Your task to perform on an android device: turn notification dots on Image 0: 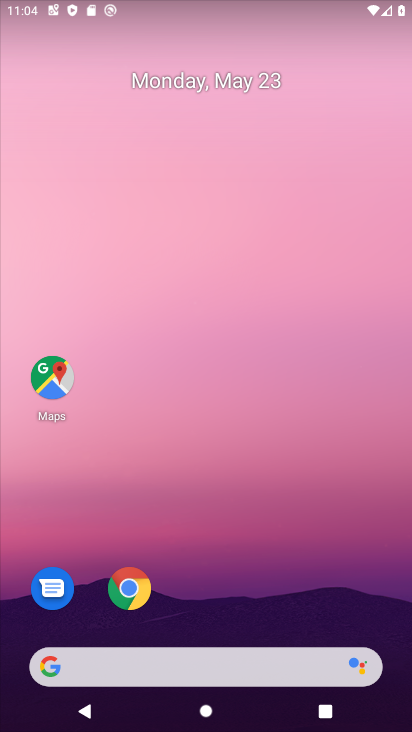
Step 0: drag from (241, 560) to (204, 87)
Your task to perform on an android device: turn notification dots on Image 1: 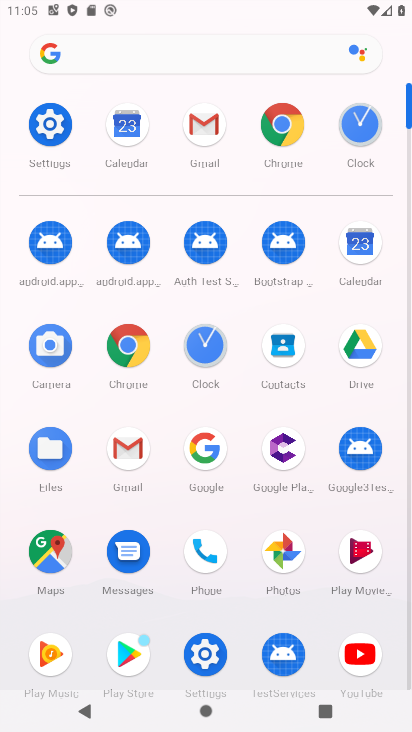
Step 1: click (57, 130)
Your task to perform on an android device: turn notification dots on Image 2: 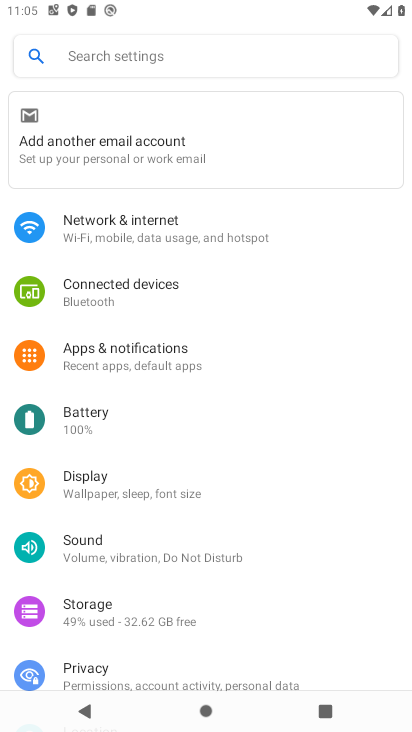
Step 2: click (166, 351)
Your task to perform on an android device: turn notification dots on Image 3: 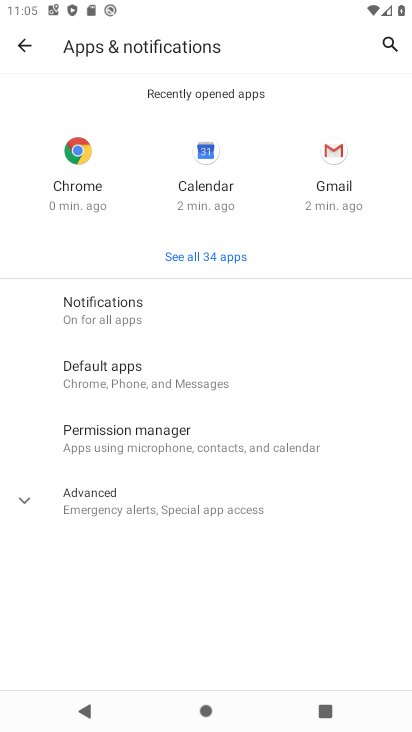
Step 3: click (149, 310)
Your task to perform on an android device: turn notification dots on Image 4: 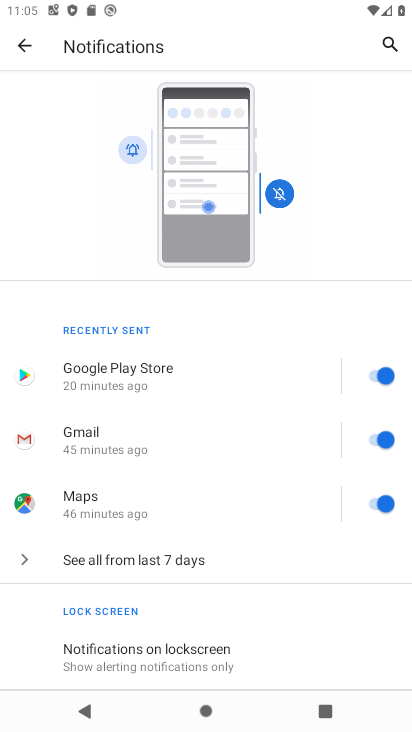
Step 4: drag from (151, 579) to (212, 88)
Your task to perform on an android device: turn notification dots on Image 5: 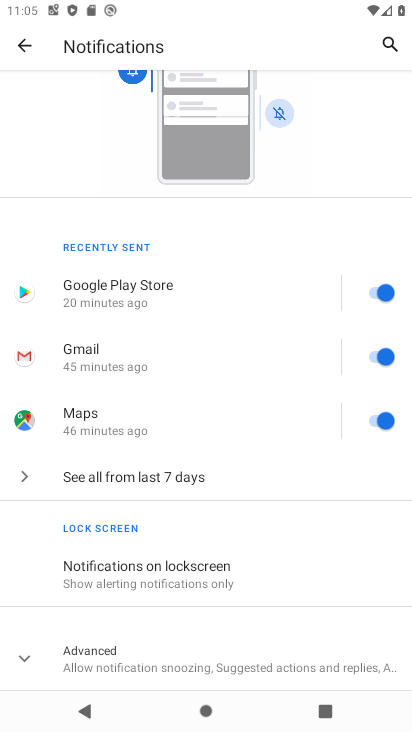
Step 5: click (194, 603)
Your task to perform on an android device: turn notification dots on Image 6: 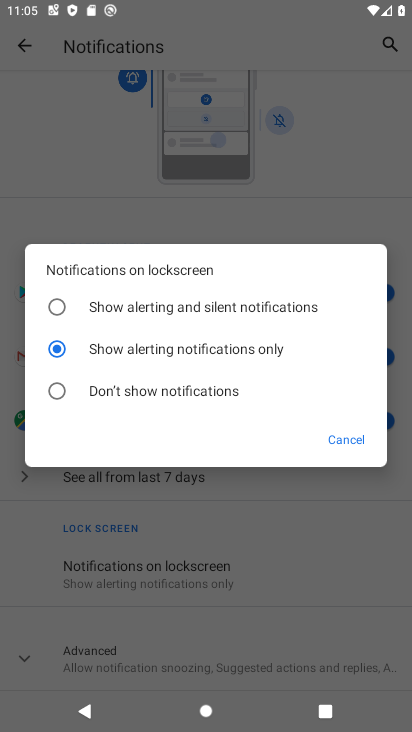
Step 6: click (345, 440)
Your task to perform on an android device: turn notification dots on Image 7: 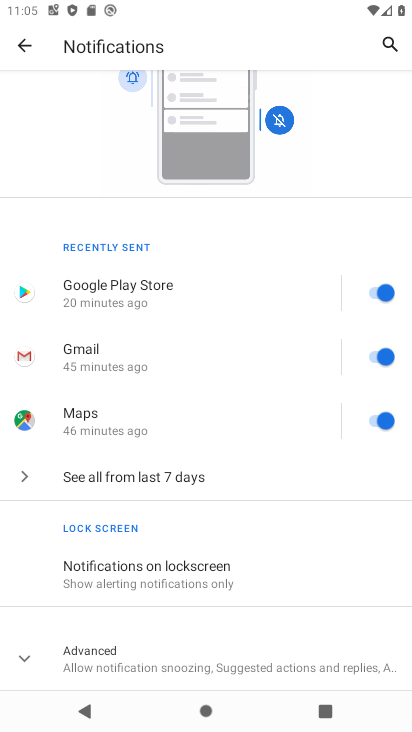
Step 7: click (171, 641)
Your task to perform on an android device: turn notification dots on Image 8: 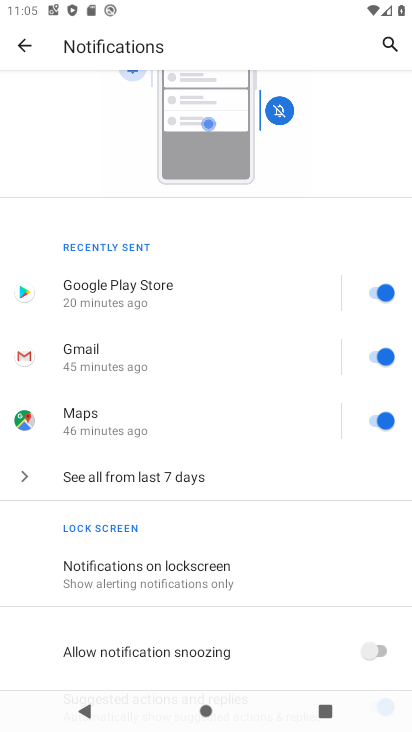
Step 8: task complete